Your task to perform on an android device: turn off picture-in-picture Image 0: 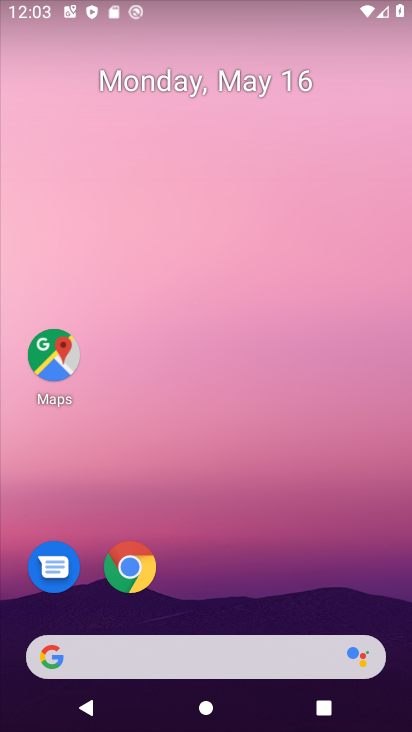
Step 0: click (134, 568)
Your task to perform on an android device: turn off picture-in-picture Image 1: 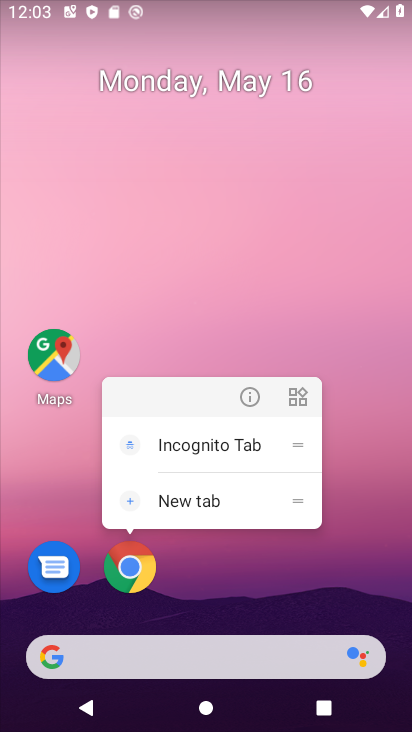
Step 1: click (251, 395)
Your task to perform on an android device: turn off picture-in-picture Image 2: 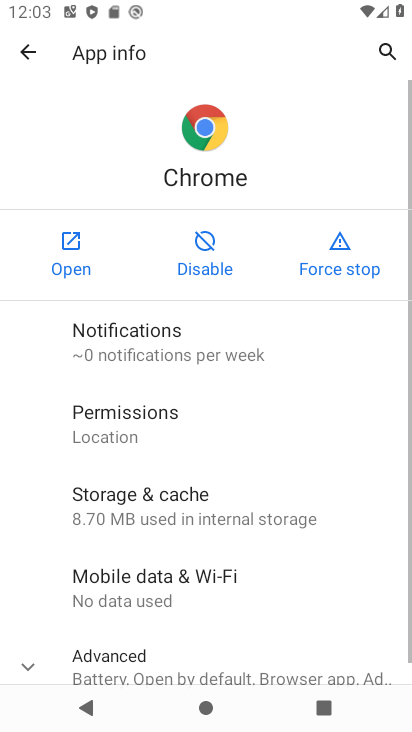
Step 2: drag from (238, 557) to (343, 21)
Your task to perform on an android device: turn off picture-in-picture Image 3: 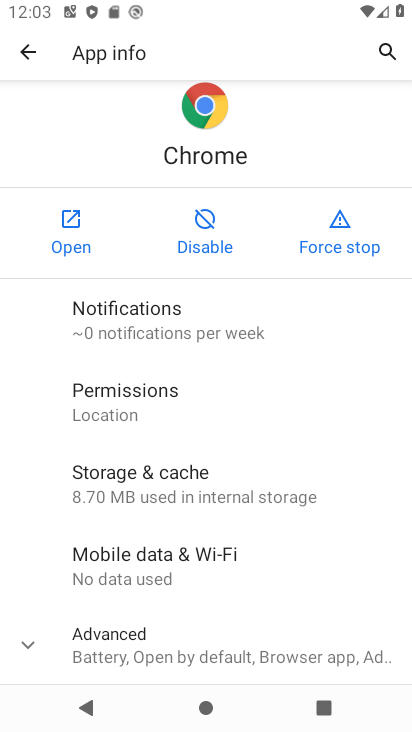
Step 3: click (181, 653)
Your task to perform on an android device: turn off picture-in-picture Image 4: 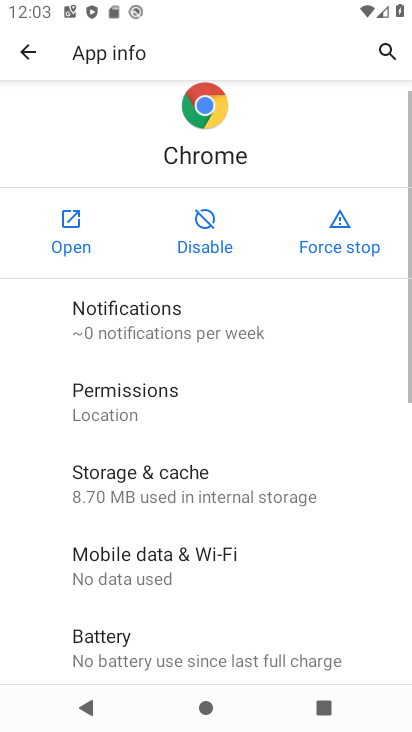
Step 4: drag from (269, 578) to (333, 67)
Your task to perform on an android device: turn off picture-in-picture Image 5: 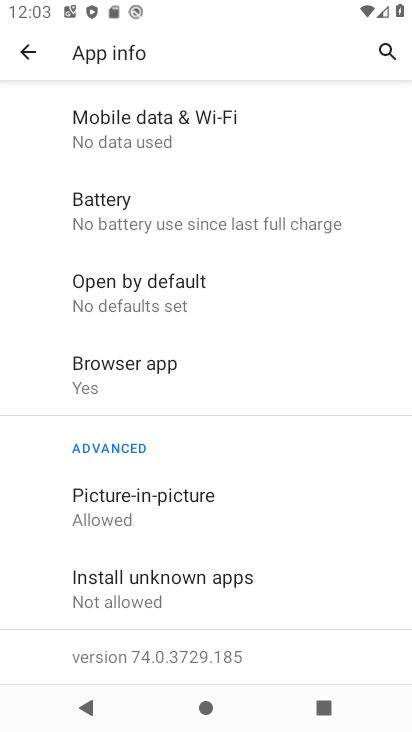
Step 5: click (188, 495)
Your task to perform on an android device: turn off picture-in-picture Image 6: 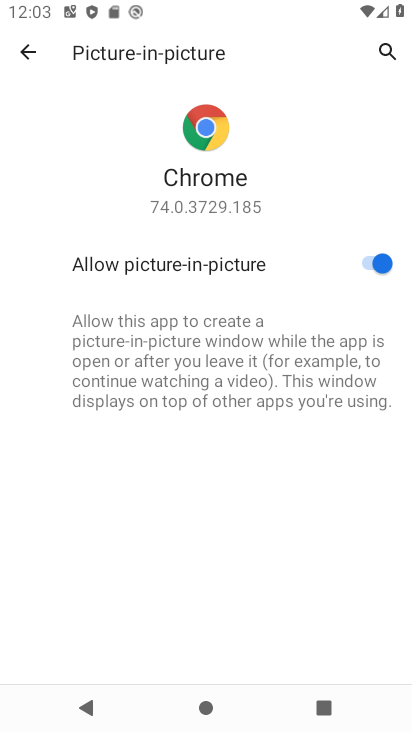
Step 6: click (378, 267)
Your task to perform on an android device: turn off picture-in-picture Image 7: 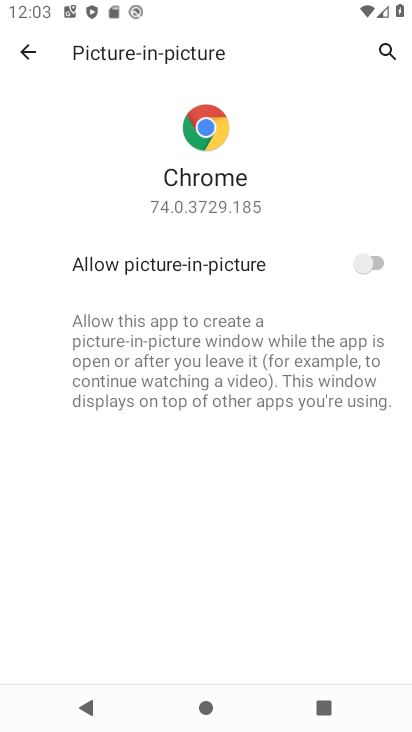
Step 7: task complete